Your task to perform on an android device: Open my contact list Image 0: 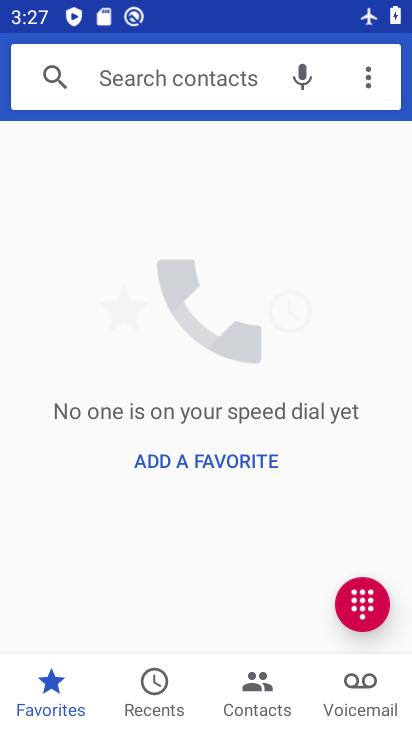
Step 0: press home button
Your task to perform on an android device: Open my contact list Image 1: 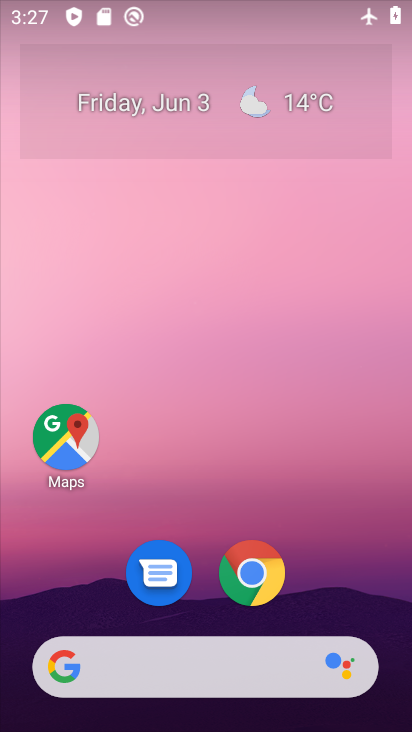
Step 1: drag from (185, 575) to (209, 144)
Your task to perform on an android device: Open my contact list Image 2: 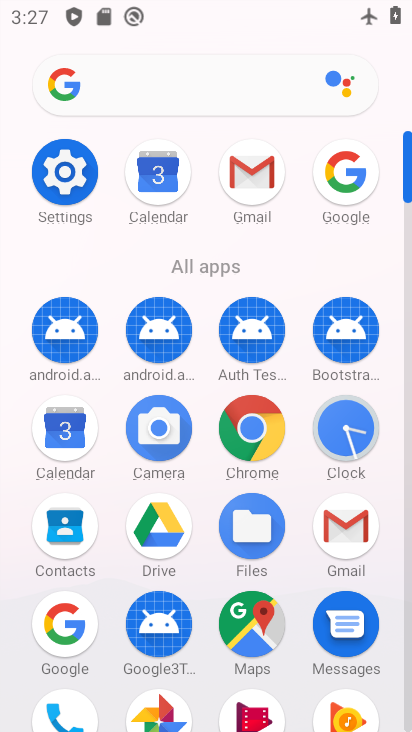
Step 2: click (67, 541)
Your task to perform on an android device: Open my contact list Image 3: 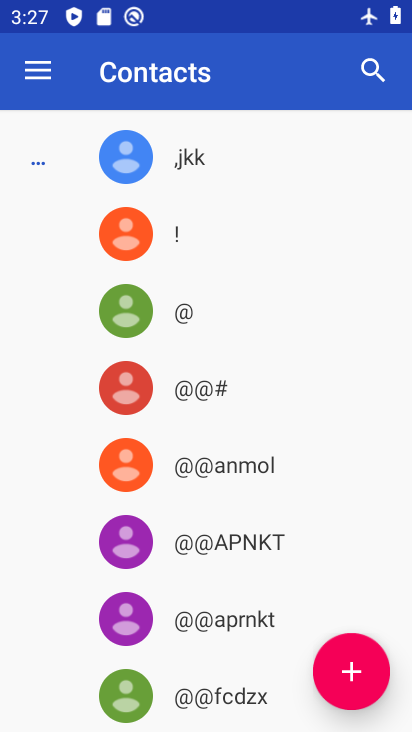
Step 3: task complete